Your task to perform on an android device: turn on wifi Image 0: 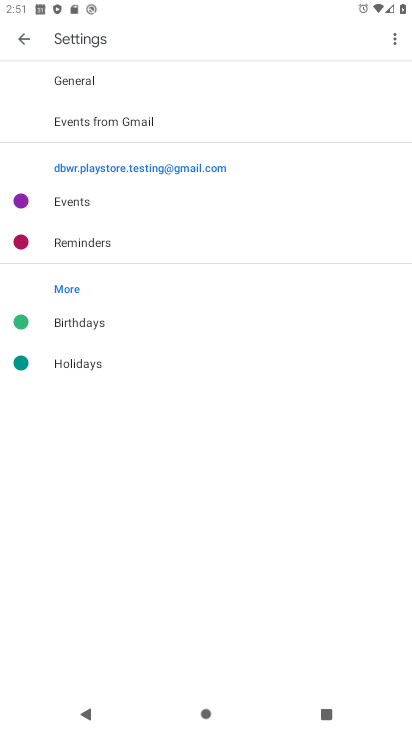
Step 0: press home button
Your task to perform on an android device: turn on wifi Image 1: 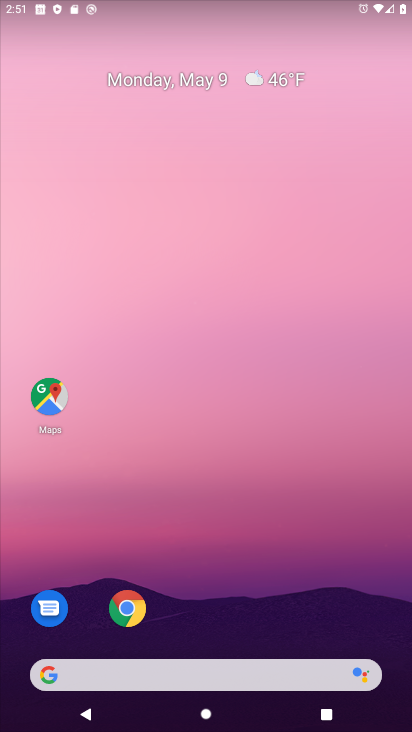
Step 1: drag from (165, 607) to (248, 300)
Your task to perform on an android device: turn on wifi Image 2: 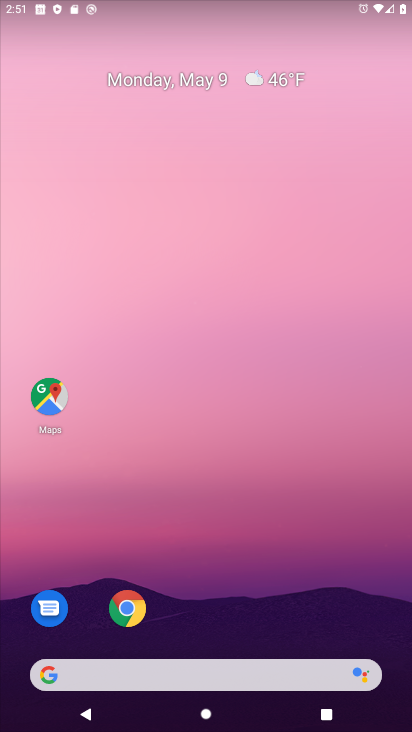
Step 2: drag from (206, 606) to (273, 224)
Your task to perform on an android device: turn on wifi Image 3: 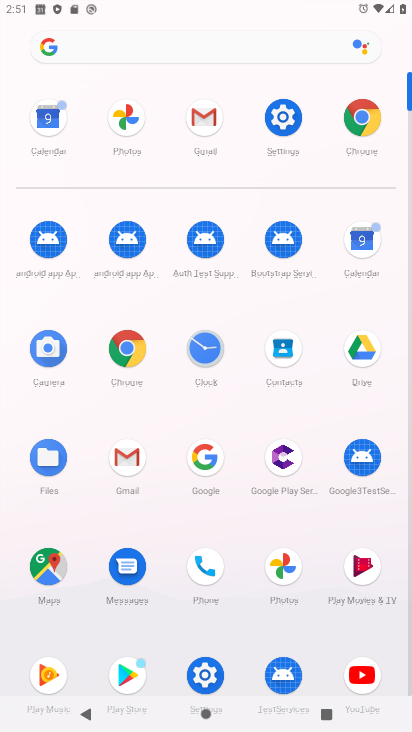
Step 3: click (203, 677)
Your task to perform on an android device: turn on wifi Image 4: 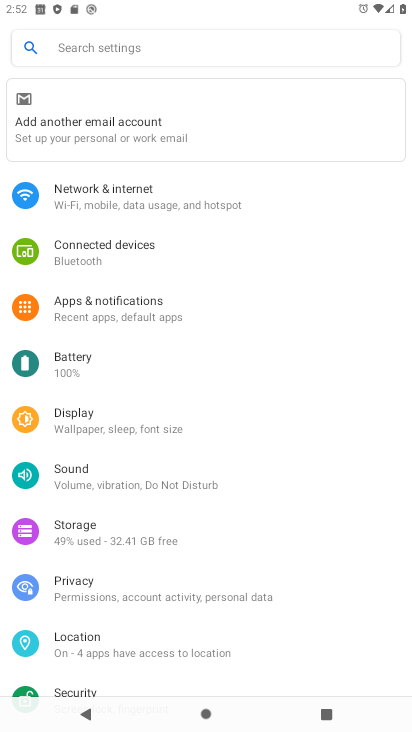
Step 4: click (148, 204)
Your task to perform on an android device: turn on wifi Image 5: 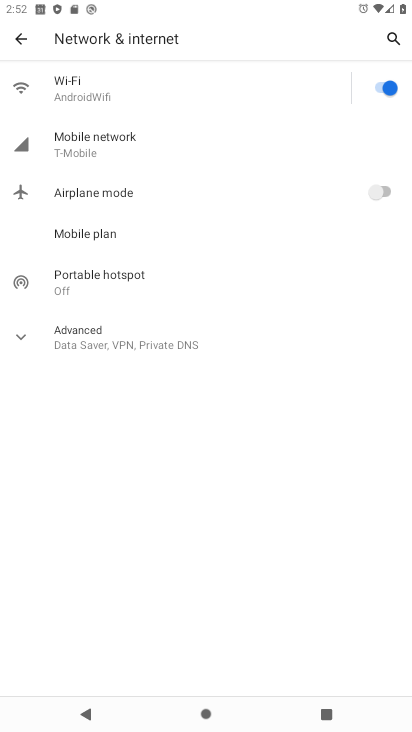
Step 5: click (93, 103)
Your task to perform on an android device: turn on wifi Image 6: 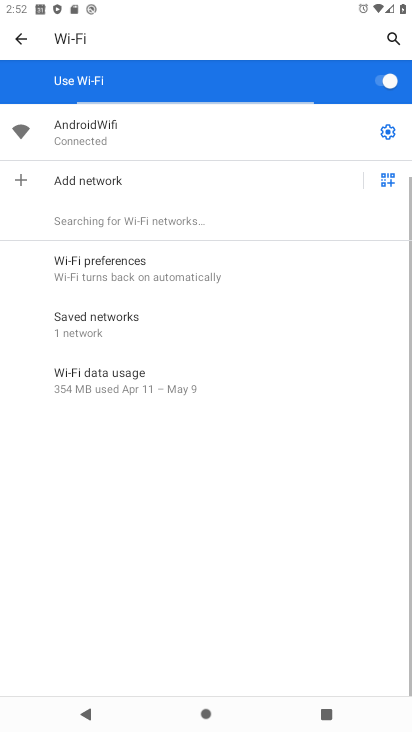
Step 6: task complete